Your task to perform on an android device: toggle javascript in the chrome app Image 0: 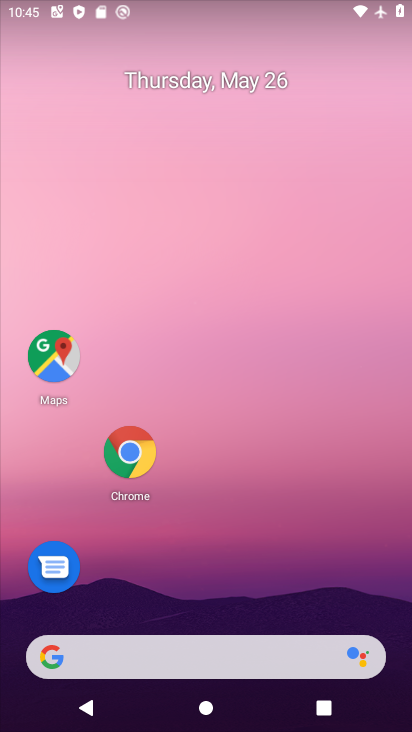
Step 0: click (139, 453)
Your task to perform on an android device: toggle javascript in the chrome app Image 1: 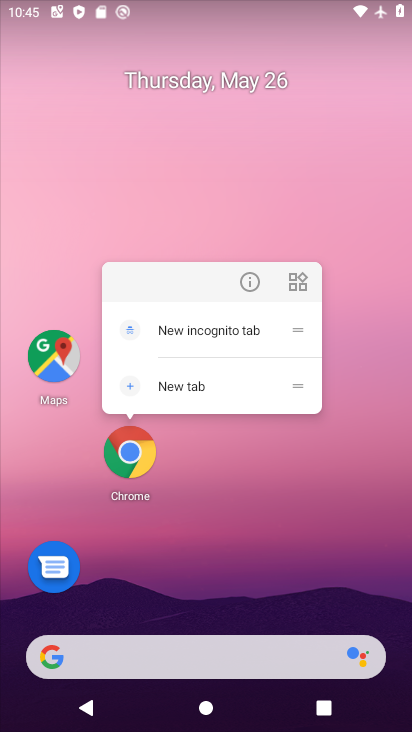
Step 1: click (114, 457)
Your task to perform on an android device: toggle javascript in the chrome app Image 2: 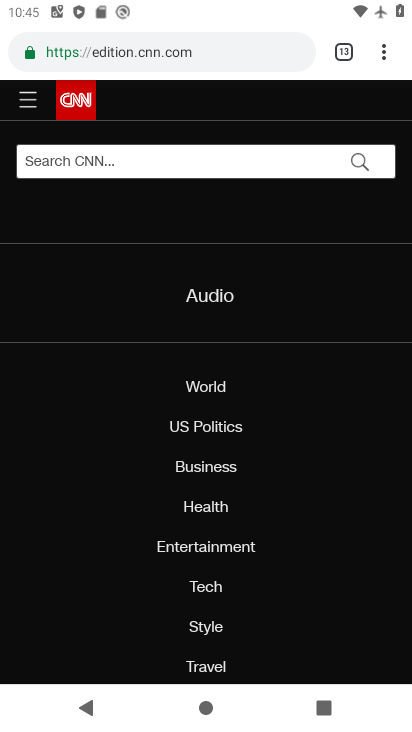
Step 2: drag from (385, 54) to (229, 598)
Your task to perform on an android device: toggle javascript in the chrome app Image 3: 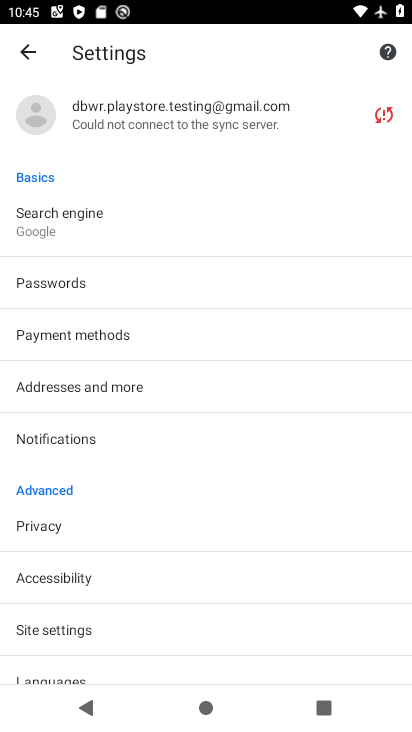
Step 3: click (91, 634)
Your task to perform on an android device: toggle javascript in the chrome app Image 4: 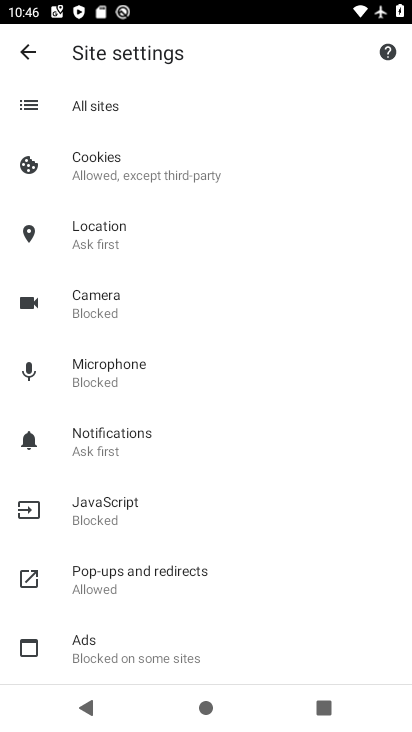
Step 4: click (102, 518)
Your task to perform on an android device: toggle javascript in the chrome app Image 5: 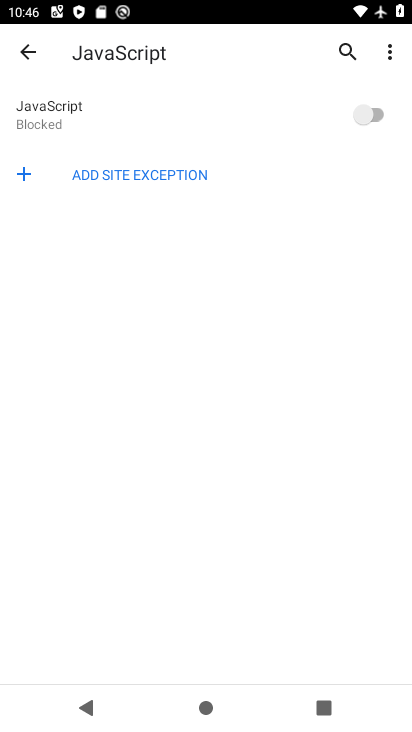
Step 5: click (374, 116)
Your task to perform on an android device: toggle javascript in the chrome app Image 6: 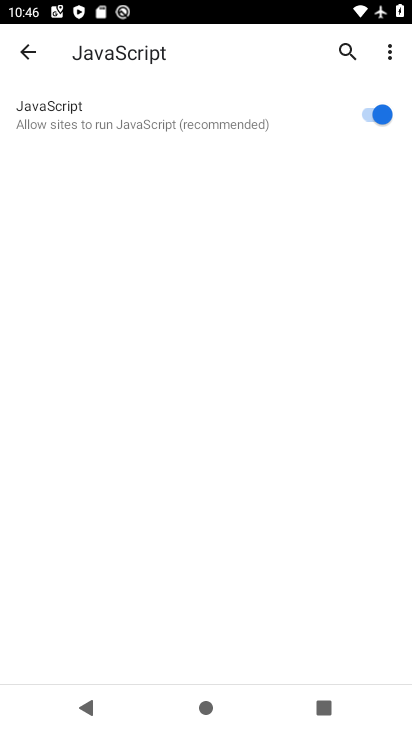
Step 6: task complete